Your task to perform on an android device: Add "razer kraken" to the cart on amazon, then select checkout. Image 0: 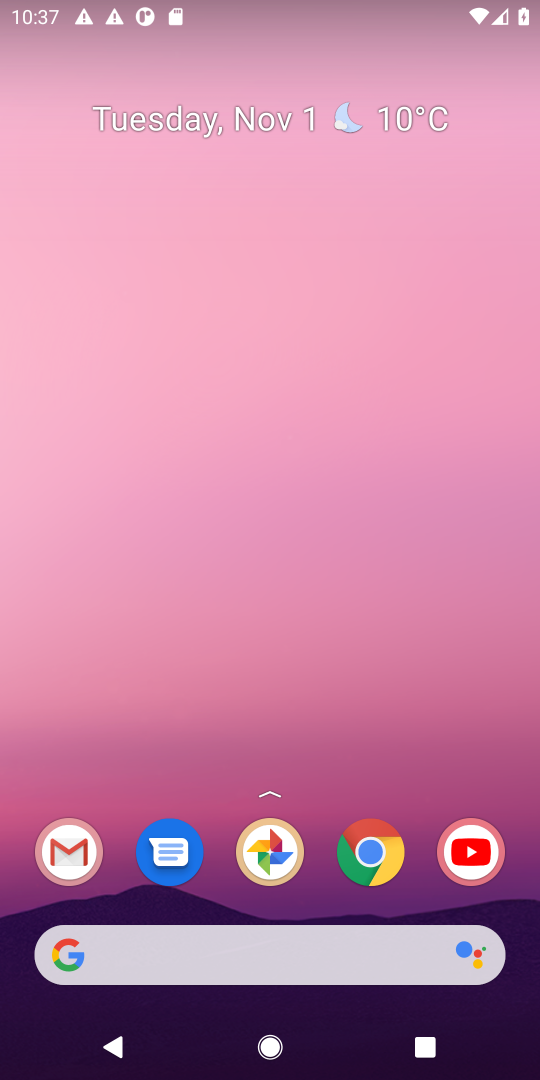
Step 0: click (63, 962)
Your task to perform on an android device: Add "razer kraken" to the cart on amazon, then select checkout. Image 1: 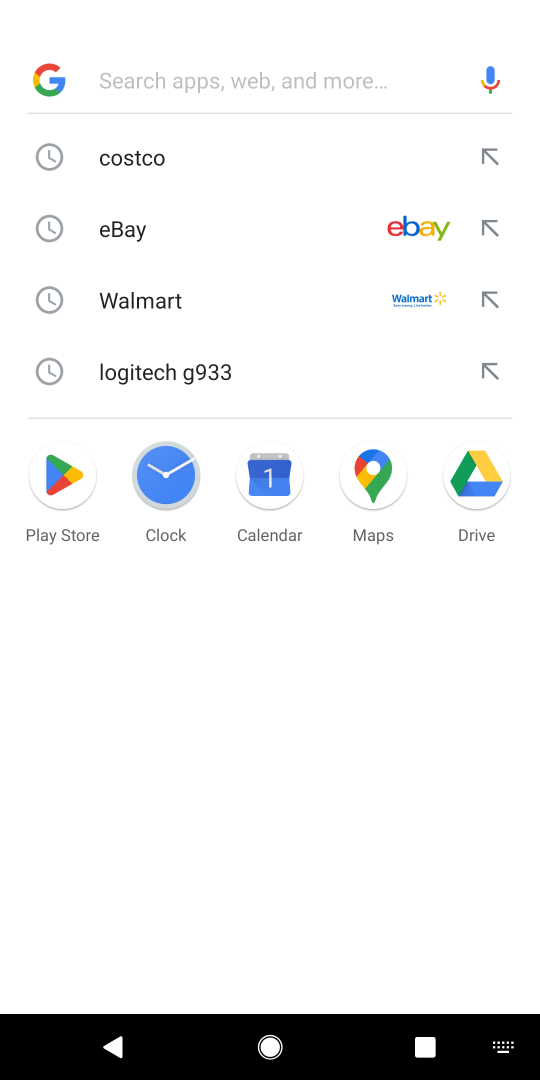
Step 1: type "amazon"
Your task to perform on an android device: Add "razer kraken" to the cart on amazon, then select checkout. Image 2: 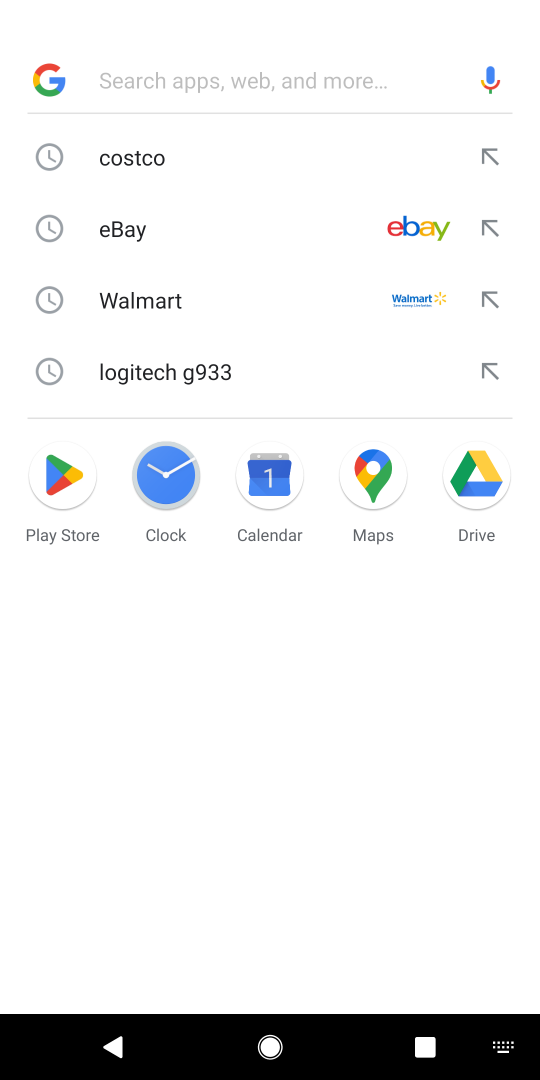
Step 2: click (140, 81)
Your task to perform on an android device: Add "razer kraken" to the cart on amazon, then select checkout. Image 3: 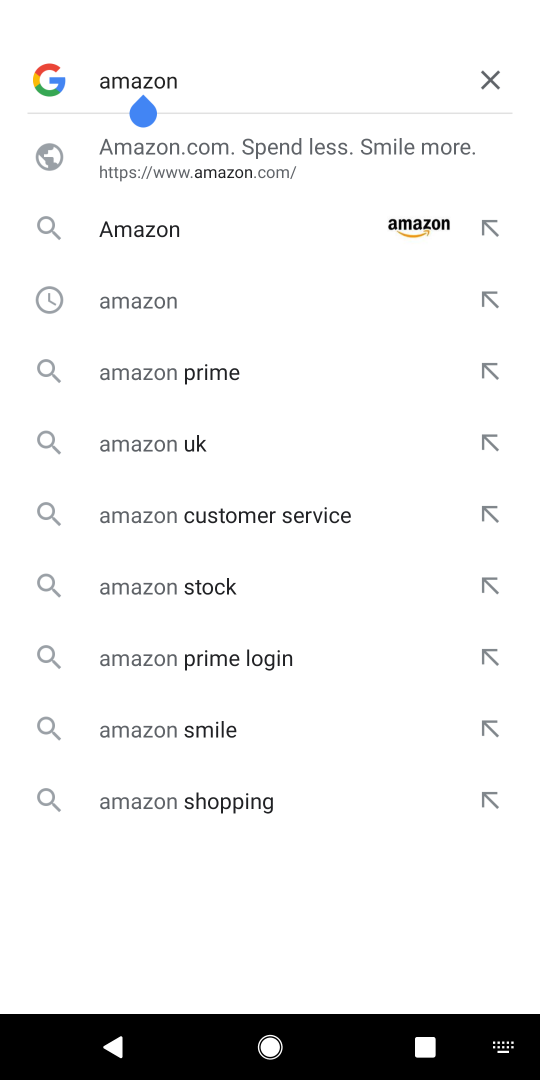
Step 3: press enter
Your task to perform on an android device: Add "razer kraken" to the cart on amazon, then select checkout. Image 4: 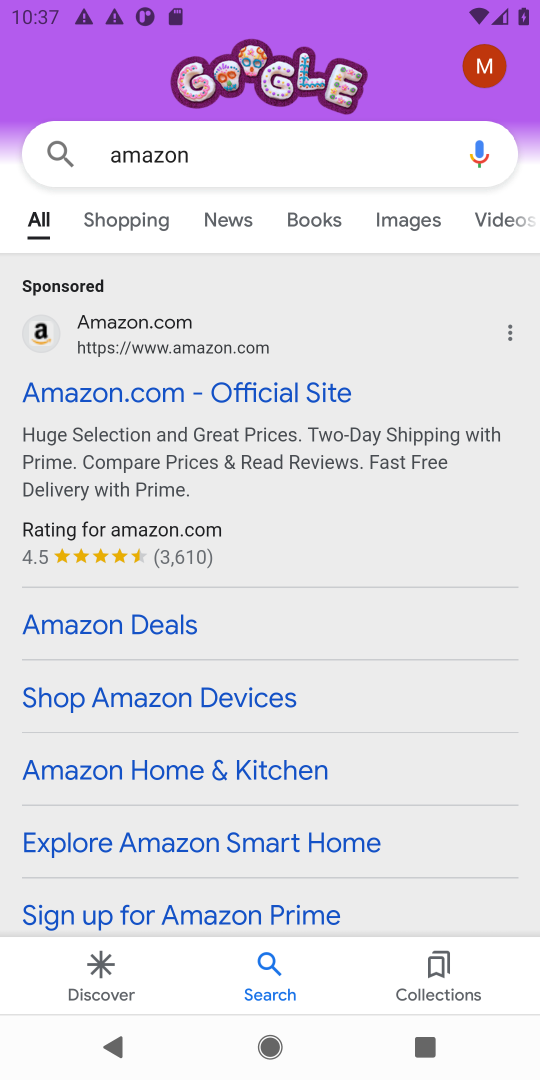
Step 4: click (189, 392)
Your task to perform on an android device: Add "razer kraken" to the cart on amazon, then select checkout. Image 5: 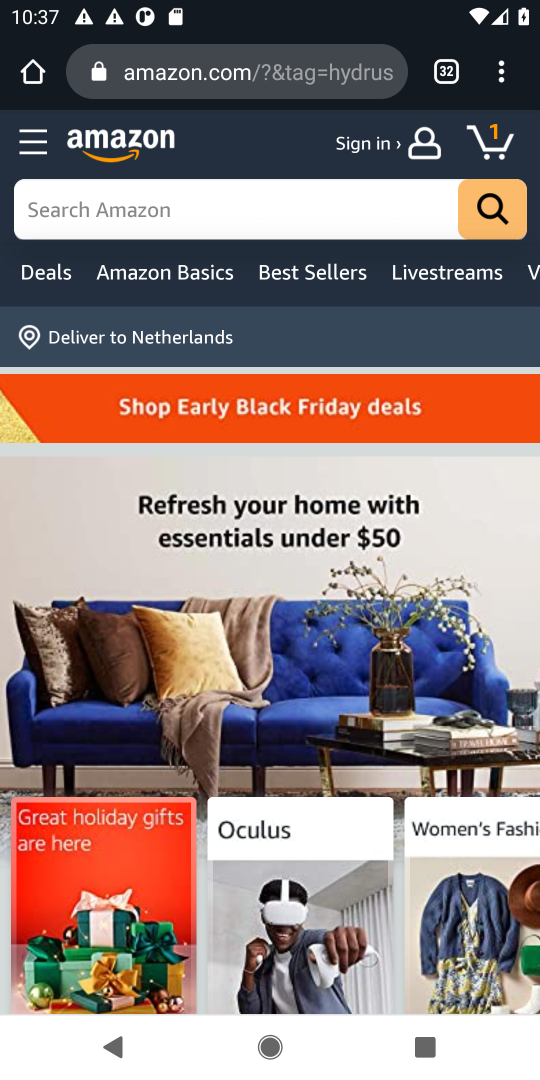
Step 5: click (260, 206)
Your task to perform on an android device: Add "razer kraken" to the cart on amazon, then select checkout. Image 6: 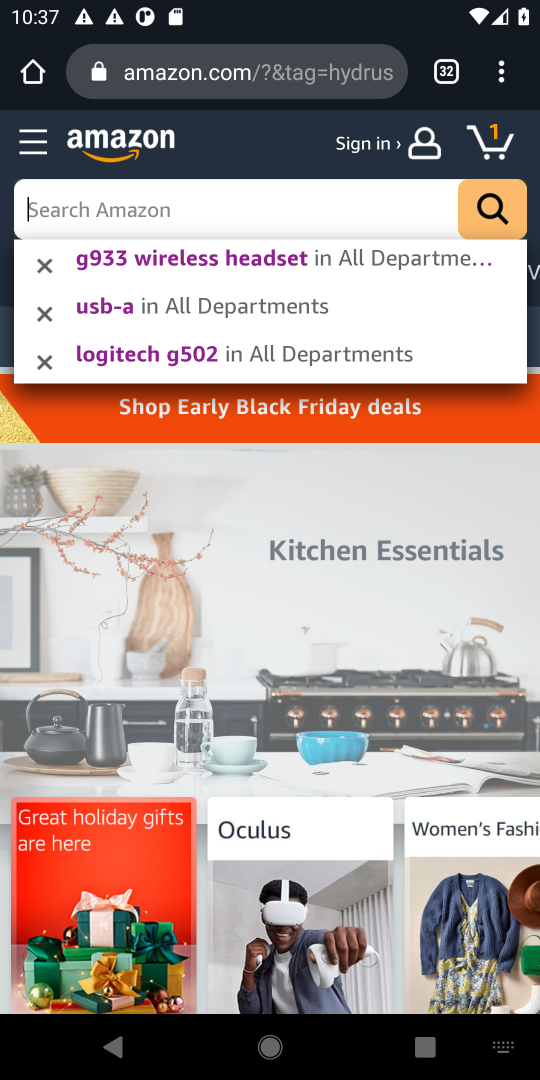
Step 6: type "razer kraken"
Your task to perform on an android device: Add "razer kraken" to the cart on amazon, then select checkout. Image 7: 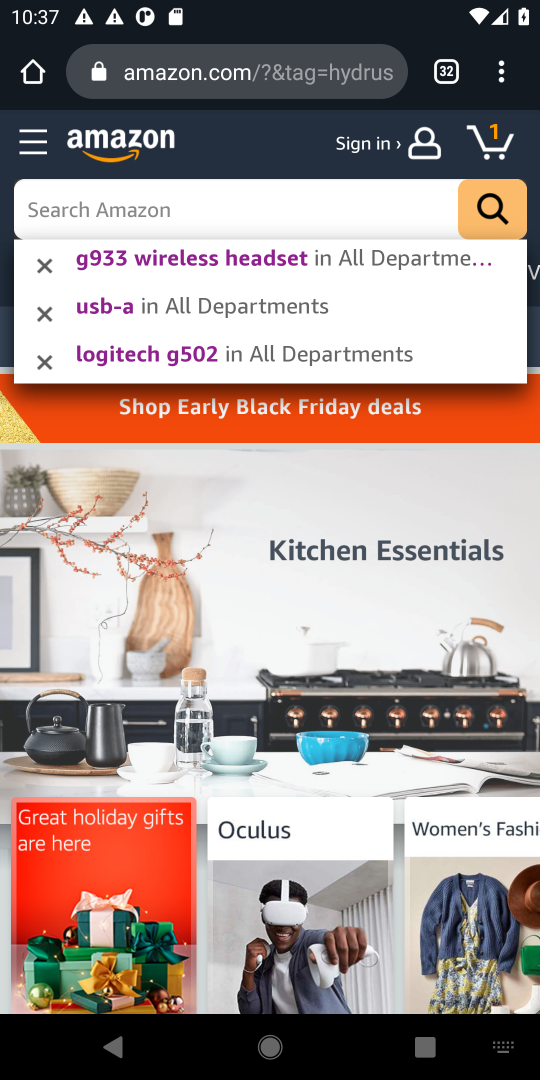
Step 7: click (203, 211)
Your task to perform on an android device: Add "razer kraken" to the cart on amazon, then select checkout. Image 8: 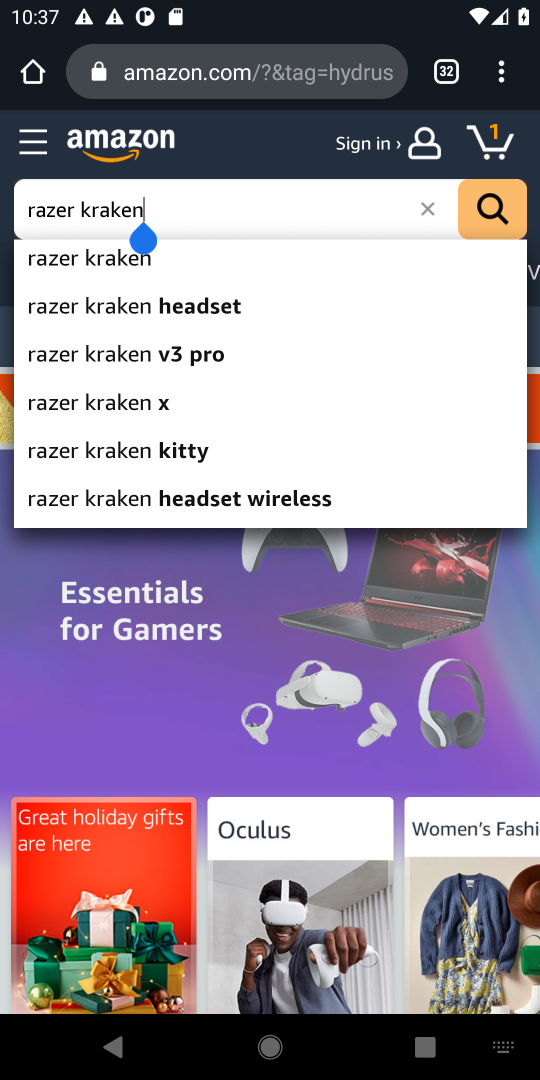
Step 8: press enter
Your task to perform on an android device: Add "razer kraken" to the cart on amazon, then select checkout. Image 9: 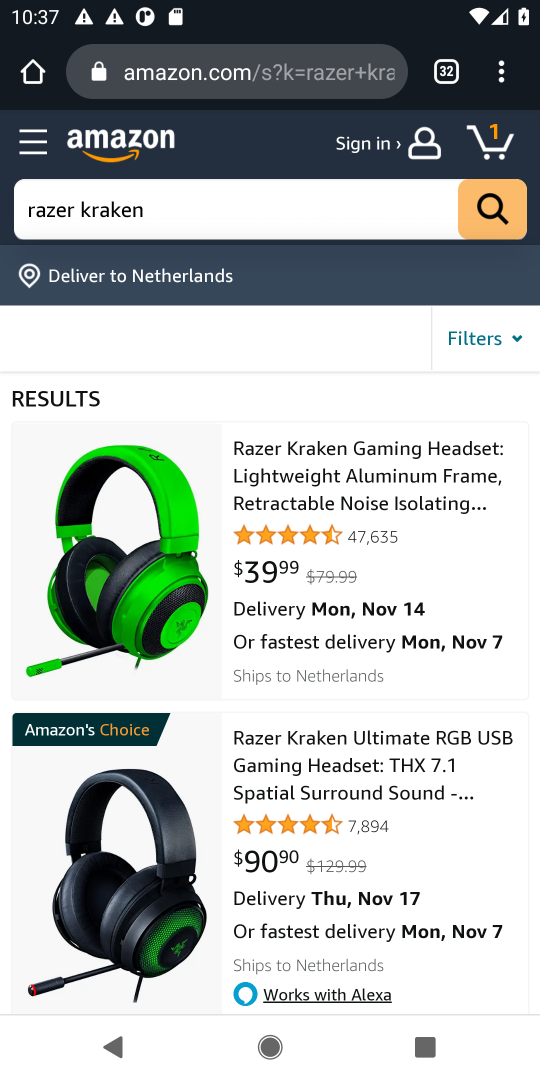
Step 9: click (365, 453)
Your task to perform on an android device: Add "razer kraken" to the cart on amazon, then select checkout. Image 10: 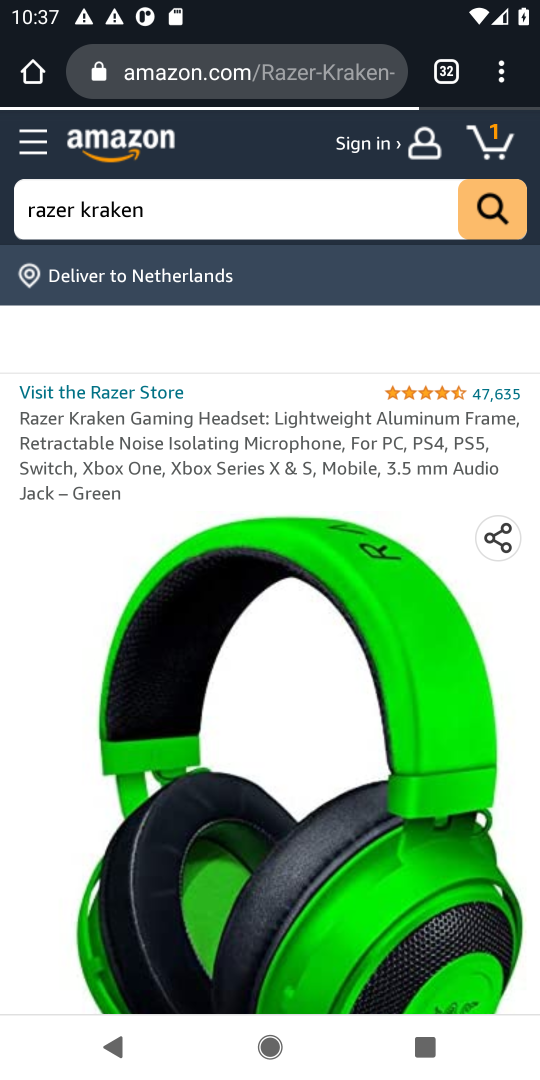
Step 10: drag from (401, 923) to (372, 342)
Your task to perform on an android device: Add "razer kraken" to the cart on amazon, then select checkout. Image 11: 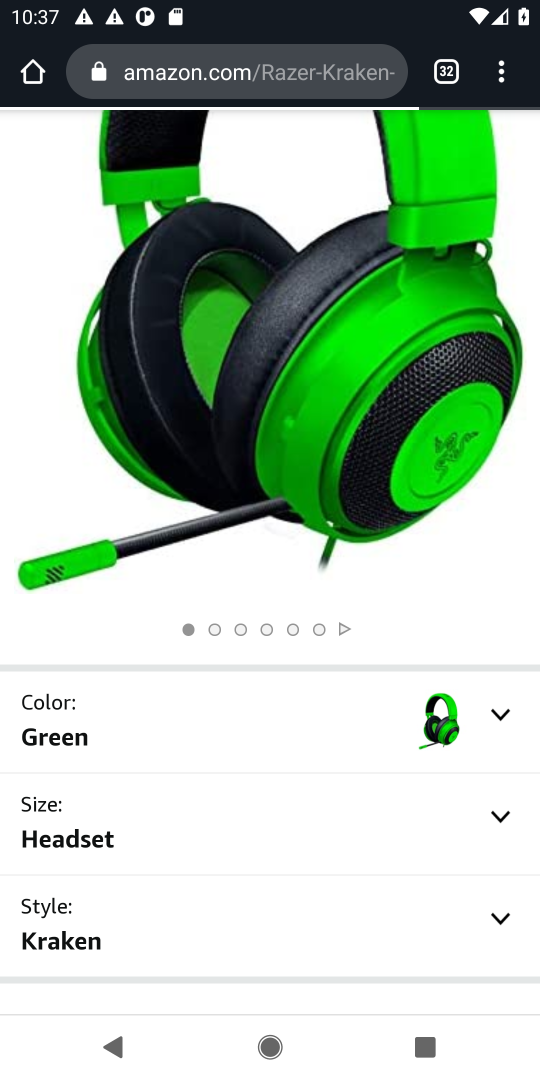
Step 11: drag from (411, 880) to (399, 291)
Your task to perform on an android device: Add "razer kraken" to the cart on amazon, then select checkout. Image 12: 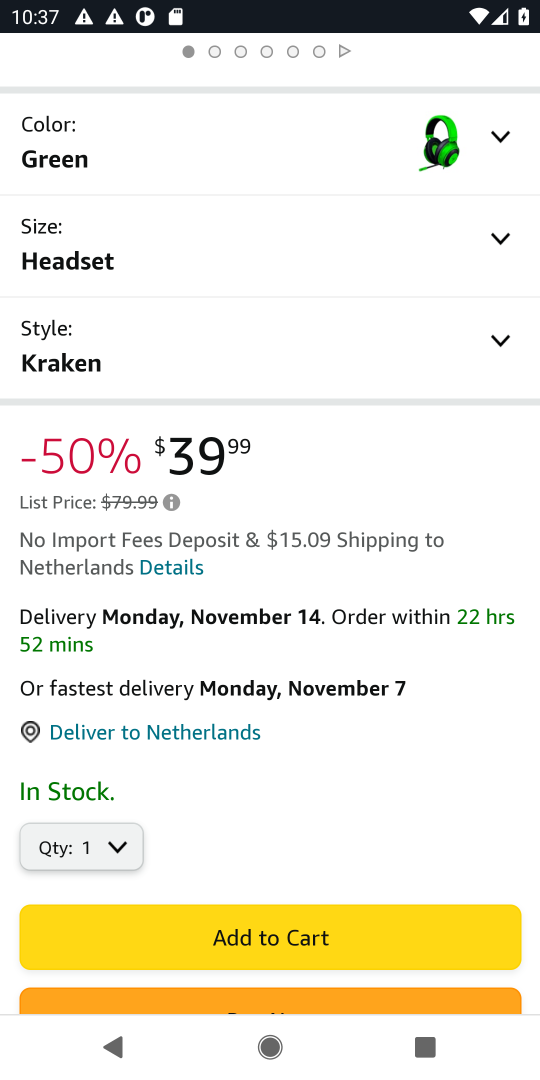
Step 12: click (316, 921)
Your task to perform on an android device: Add "razer kraken" to the cart on amazon, then select checkout. Image 13: 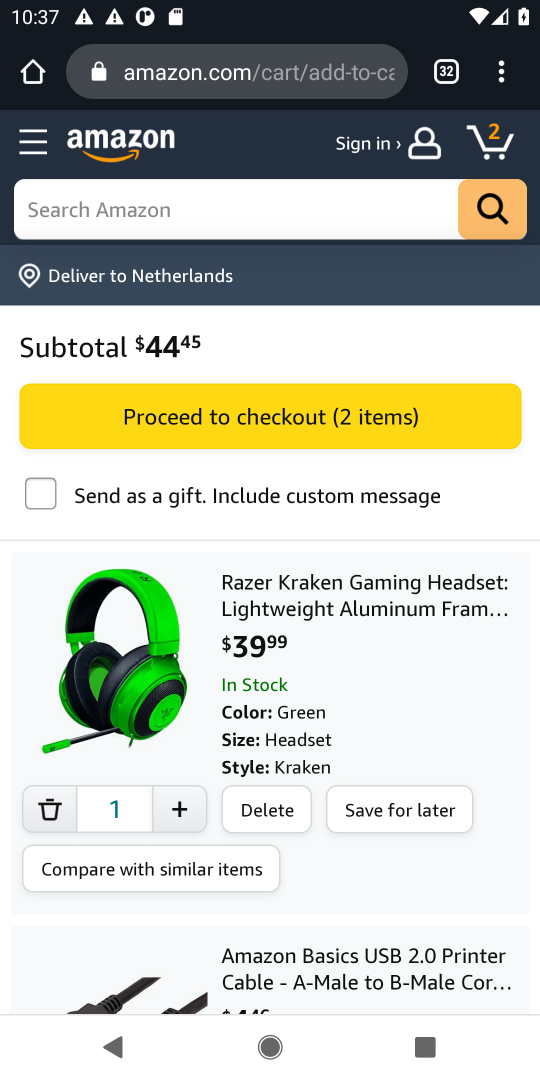
Step 13: click (489, 135)
Your task to perform on an android device: Add "razer kraken" to the cart on amazon, then select checkout. Image 14: 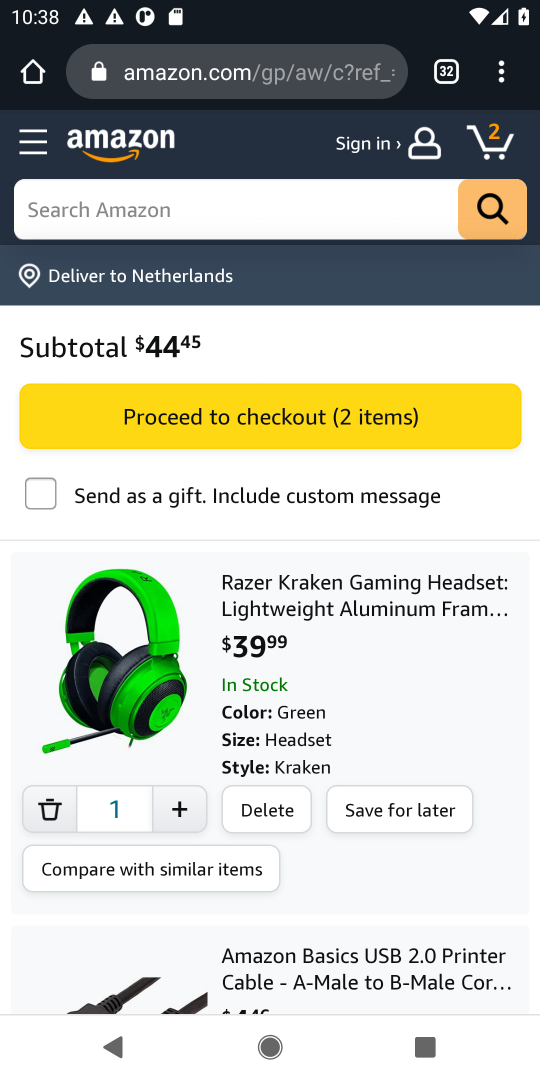
Step 14: click (295, 430)
Your task to perform on an android device: Add "razer kraken" to the cart on amazon, then select checkout. Image 15: 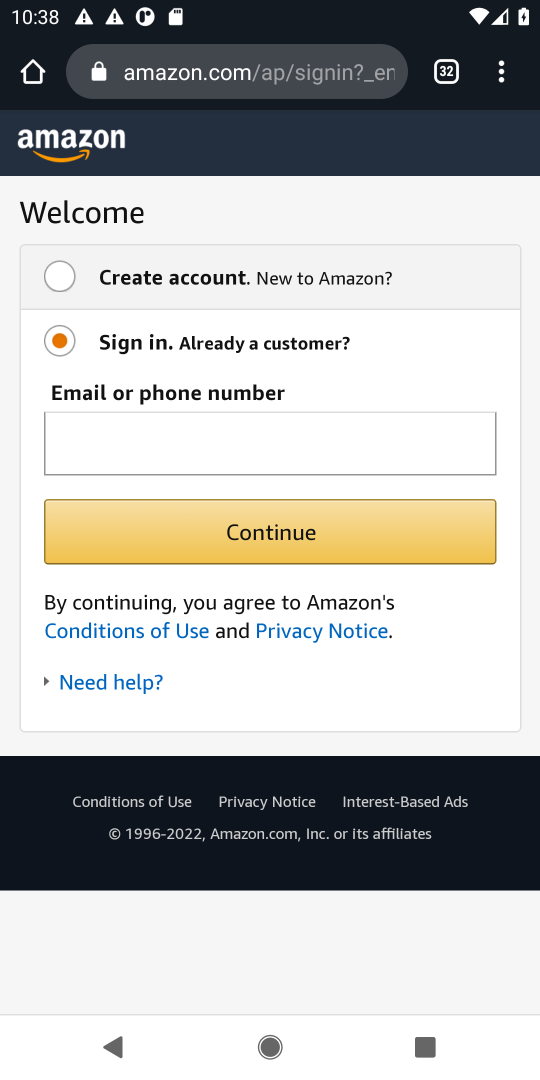
Step 15: task complete